Your task to perform on an android device: Search for sushi restaurants on Maps Image 0: 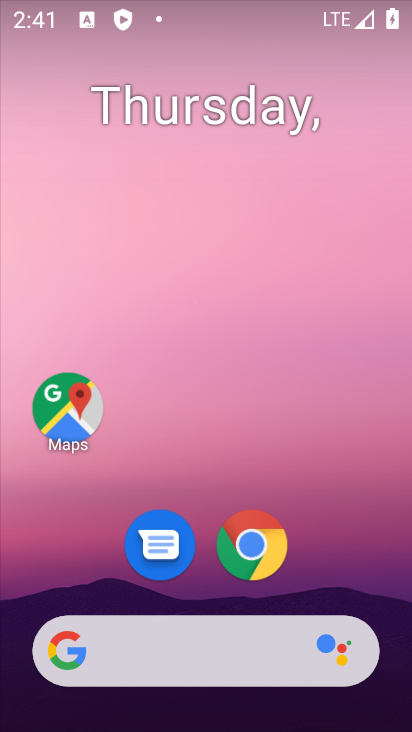
Step 0: drag from (245, 642) to (364, 6)
Your task to perform on an android device: Search for sushi restaurants on Maps Image 1: 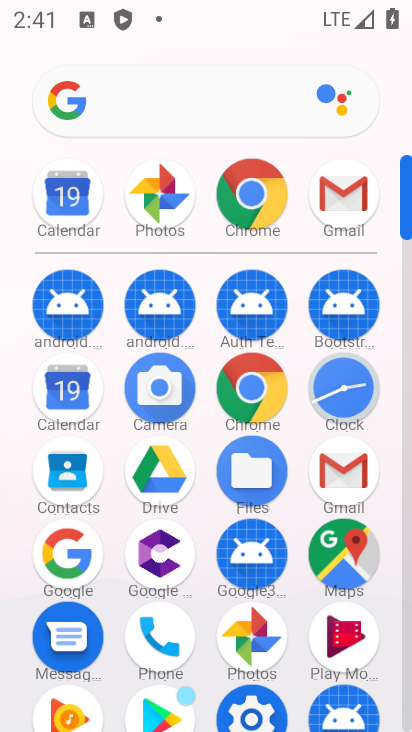
Step 1: click (348, 568)
Your task to perform on an android device: Search for sushi restaurants on Maps Image 2: 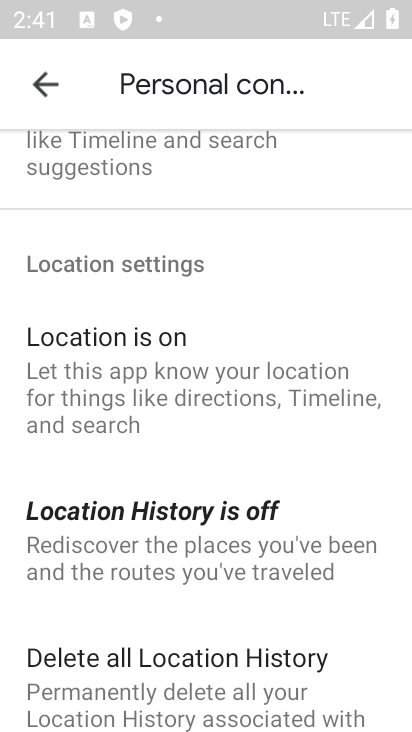
Step 2: press back button
Your task to perform on an android device: Search for sushi restaurants on Maps Image 3: 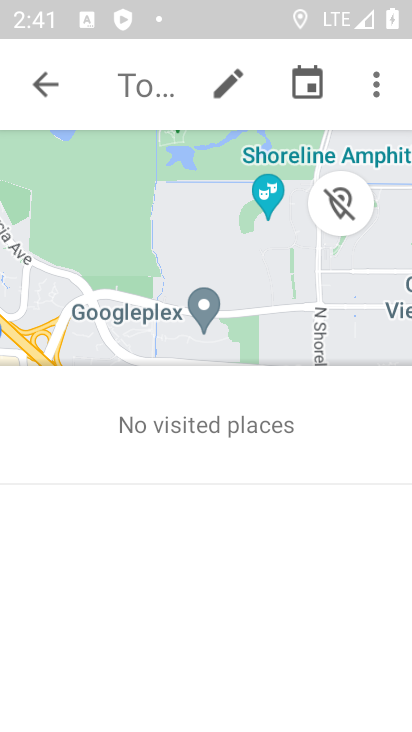
Step 3: press back button
Your task to perform on an android device: Search for sushi restaurants on Maps Image 4: 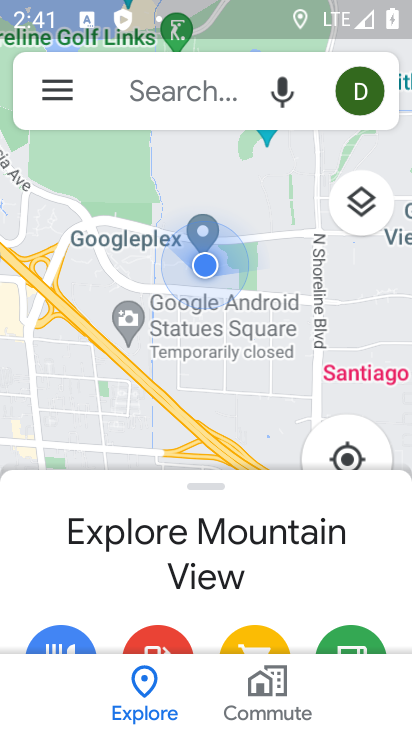
Step 4: click (111, 77)
Your task to perform on an android device: Search for sushi restaurants on Maps Image 5: 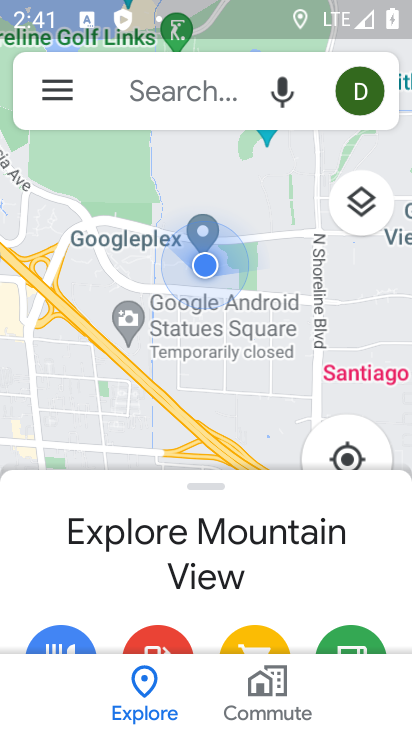
Step 5: click (120, 88)
Your task to perform on an android device: Search for sushi restaurants on Maps Image 6: 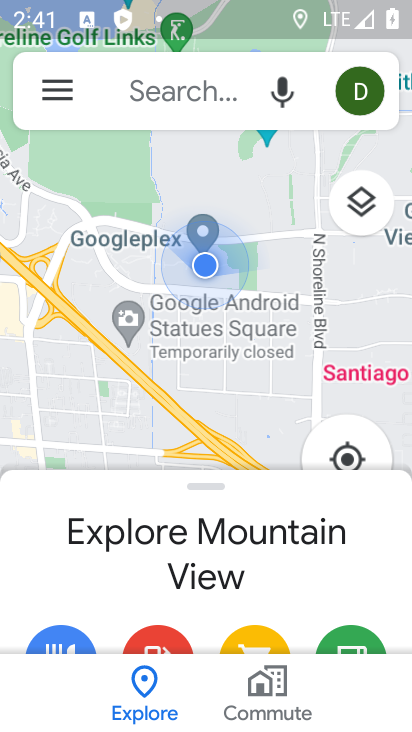
Step 6: click (120, 88)
Your task to perform on an android device: Search for sushi restaurants on Maps Image 7: 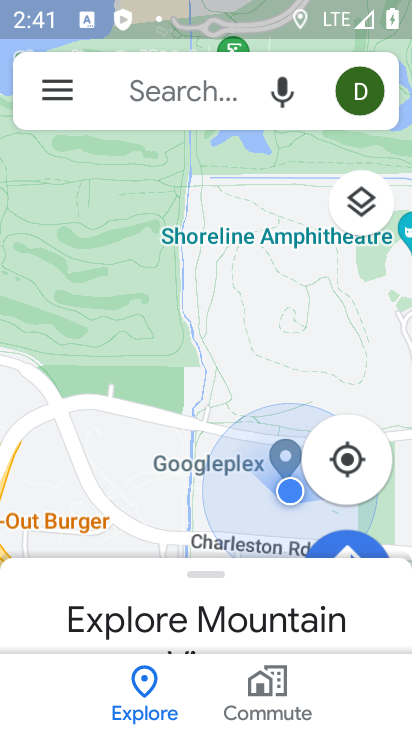
Step 7: click (173, 81)
Your task to perform on an android device: Search for sushi restaurants on Maps Image 8: 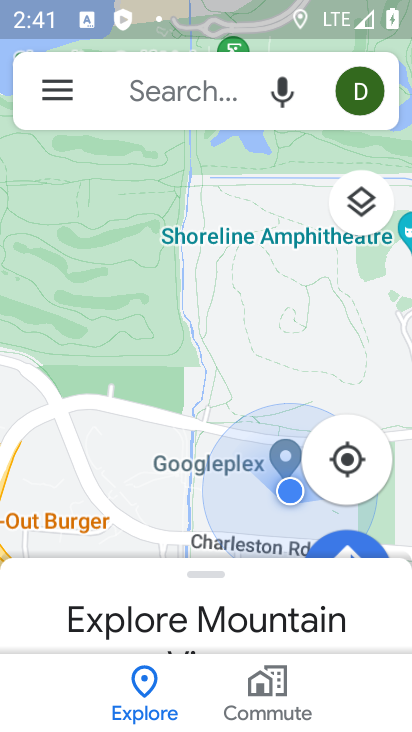
Step 8: click (173, 81)
Your task to perform on an android device: Search for sushi restaurants on Maps Image 9: 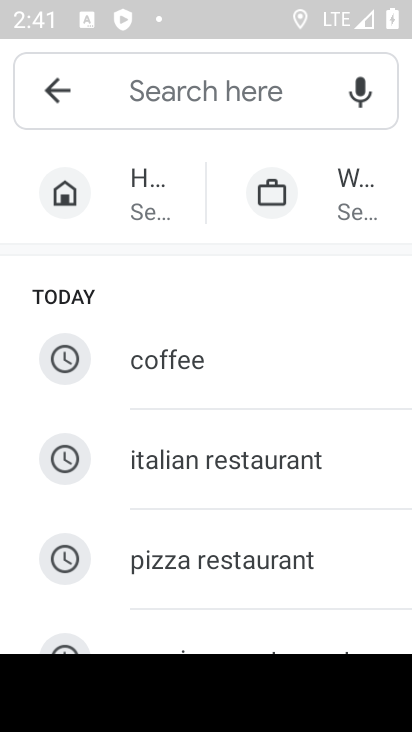
Step 9: type "sushi restaurant"
Your task to perform on an android device: Search for sushi restaurants on Maps Image 10: 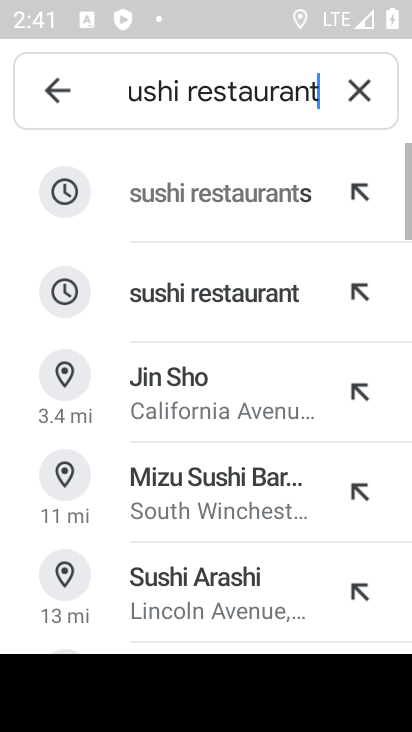
Step 10: click (222, 200)
Your task to perform on an android device: Search for sushi restaurants on Maps Image 11: 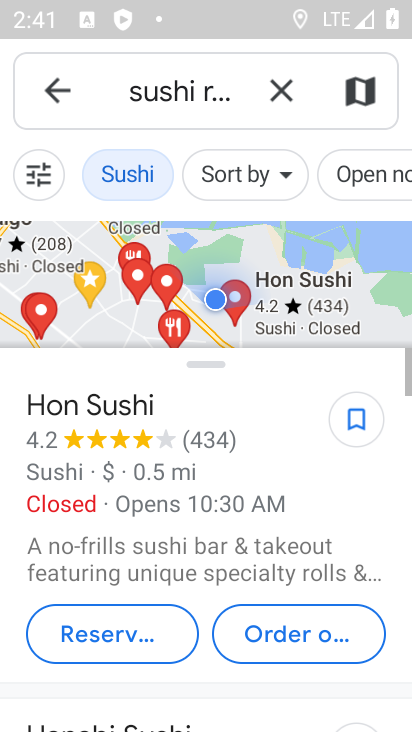
Step 11: task complete